Your task to perform on an android device: turn off wifi Image 0: 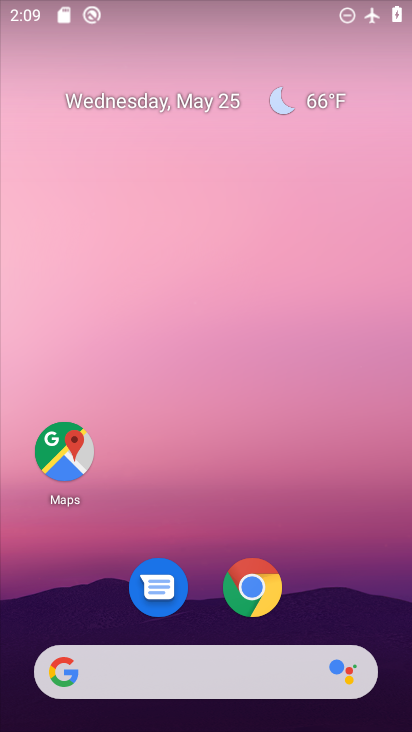
Step 0: drag from (372, 605) to (372, 107)
Your task to perform on an android device: turn off wifi Image 1: 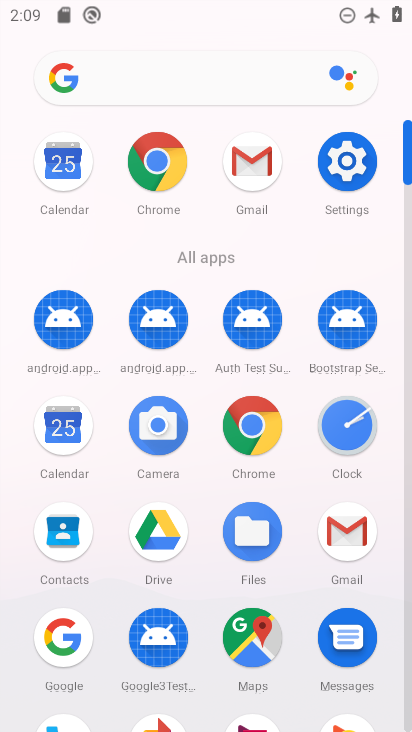
Step 1: click (341, 165)
Your task to perform on an android device: turn off wifi Image 2: 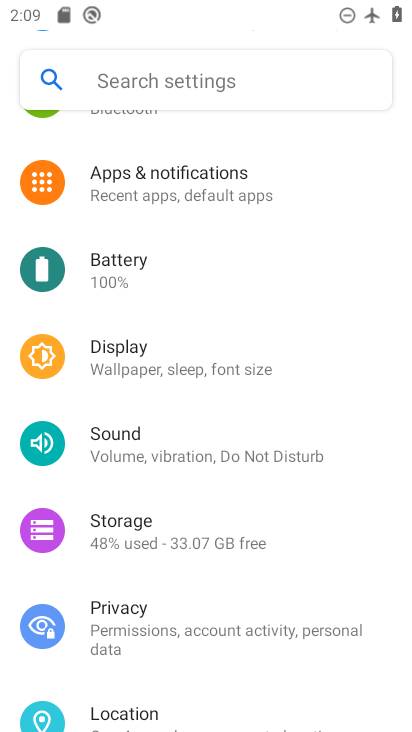
Step 2: drag from (323, 263) to (347, 453)
Your task to perform on an android device: turn off wifi Image 3: 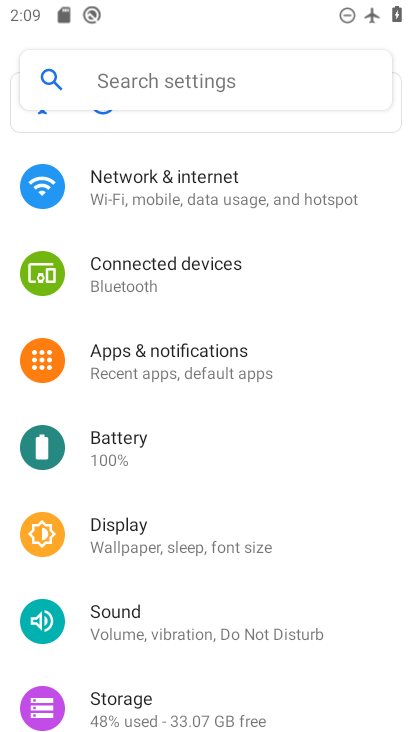
Step 3: drag from (339, 646) to (351, 461)
Your task to perform on an android device: turn off wifi Image 4: 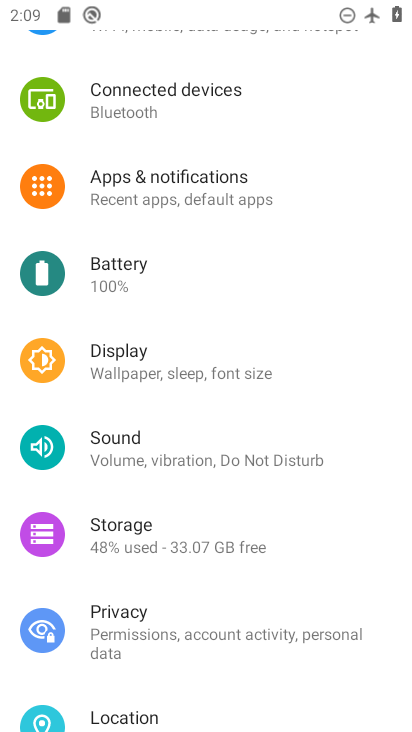
Step 4: drag from (345, 621) to (345, 421)
Your task to perform on an android device: turn off wifi Image 5: 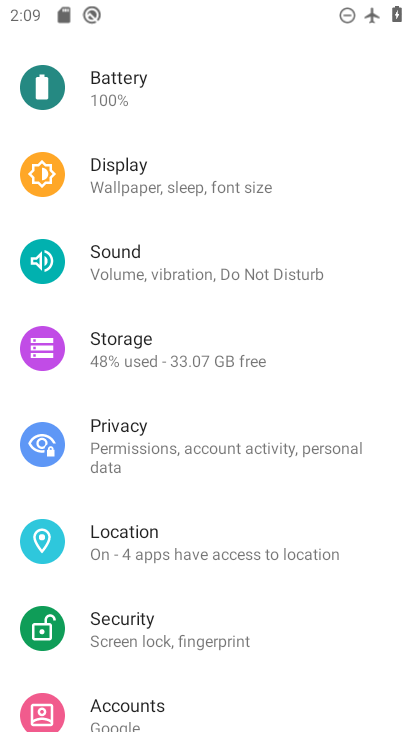
Step 5: drag from (327, 633) to (353, 454)
Your task to perform on an android device: turn off wifi Image 6: 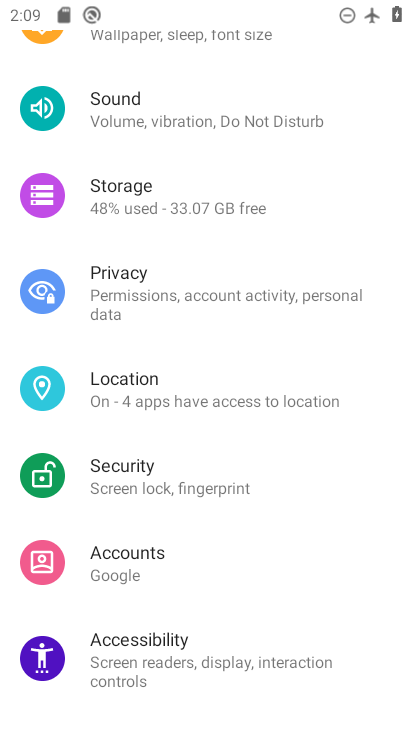
Step 6: drag from (346, 210) to (326, 472)
Your task to perform on an android device: turn off wifi Image 7: 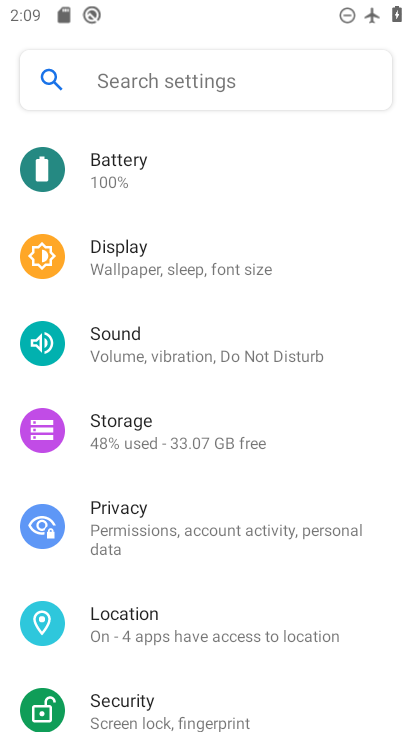
Step 7: drag from (348, 251) to (340, 477)
Your task to perform on an android device: turn off wifi Image 8: 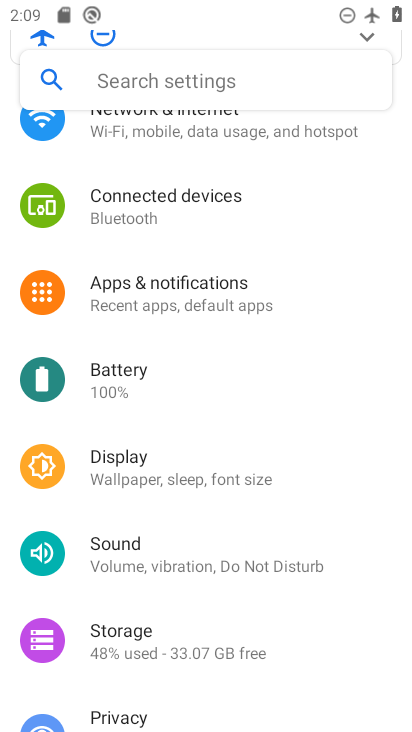
Step 8: drag from (345, 286) to (336, 451)
Your task to perform on an android device: turn off wifi Image 9: 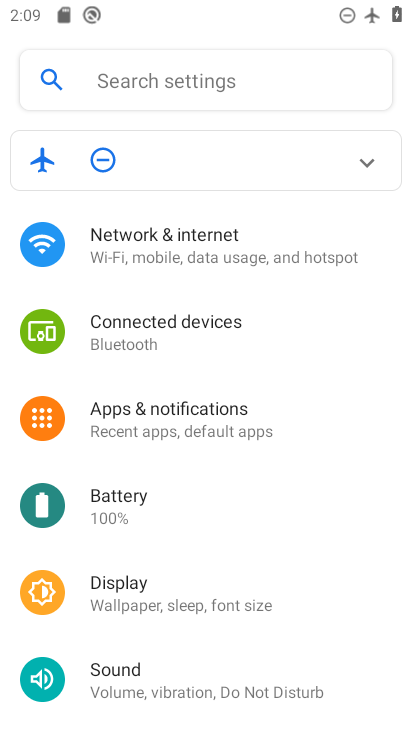
Step 9: drag from (320, 498) to (327, 358)
Your task to perform on an android device: turn off wifi Image 10: 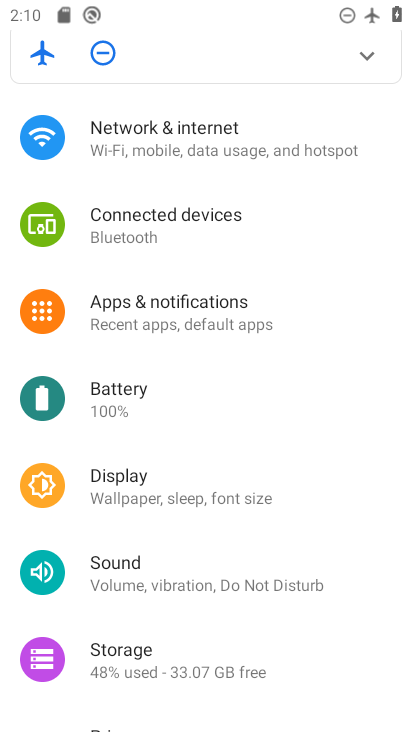
Step 10: drag from (347, 565) to (349, 349)
Your task to perform on an android device: turn off wifi Image 11: 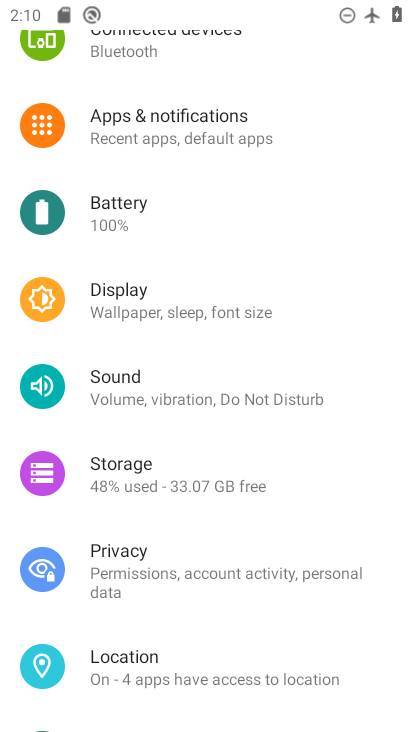
Step 11: drag from (349, 595) to (348, 374)
Your task to perform on an android device: turn off wifi Image 12: 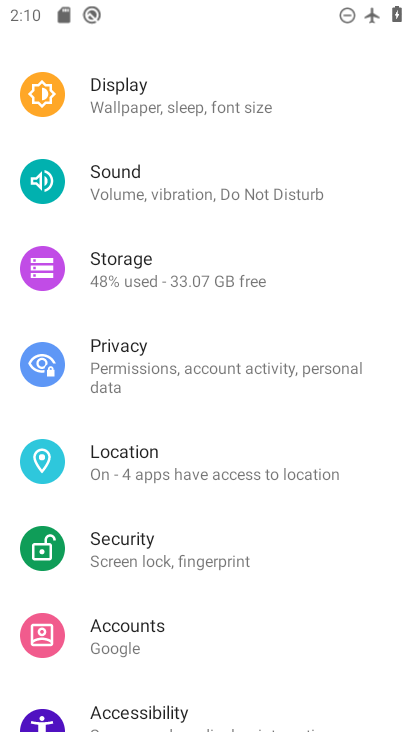
Step 12: drag from (342, 604) to (349, 382)
Your task to perform on an android device: turn off wifi Image 13: 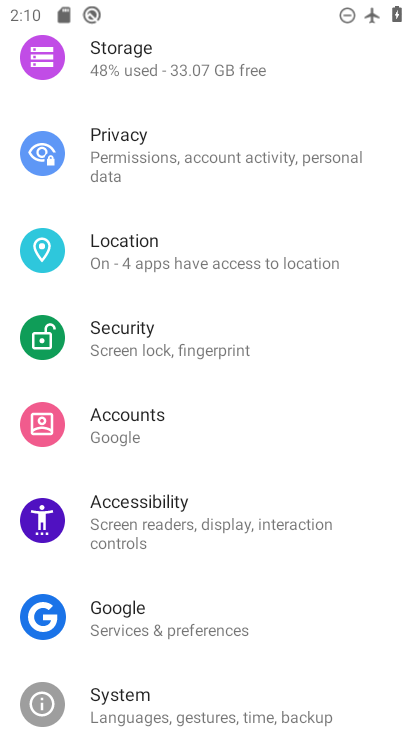
Step 13: drag from (349, 242) to (341, 435)
Your task to perform on an android device: turn off wifi Image 14: 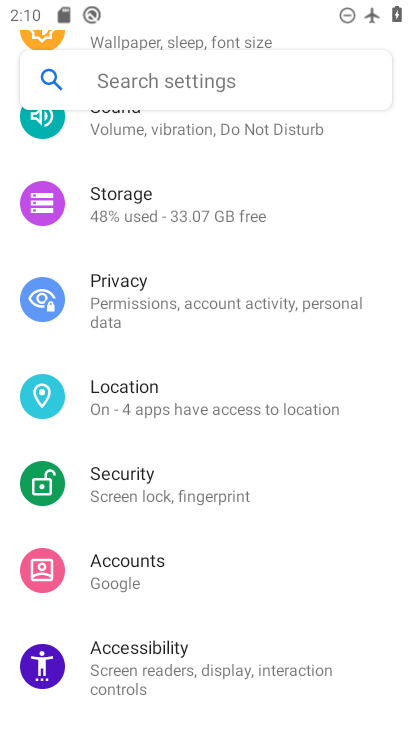
Step 14: drag from (351, 233) to (360, 453)
Your task to perform on an android device: turn off wifi Image 15: 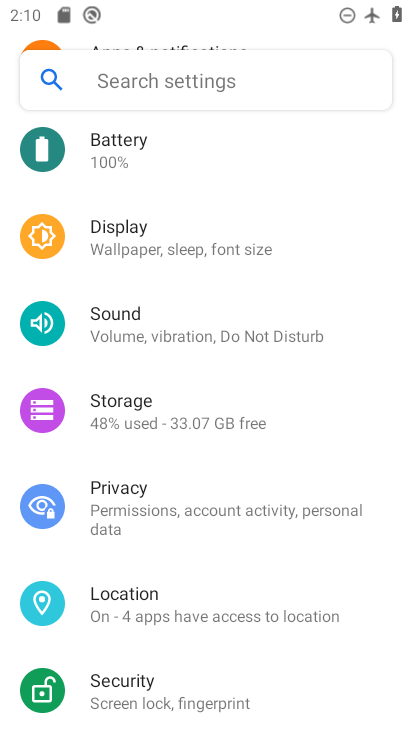
Step 15: drag from (348, 228) to (344, 434)
Your task to perform on an android device: turn off wifi Image 16: 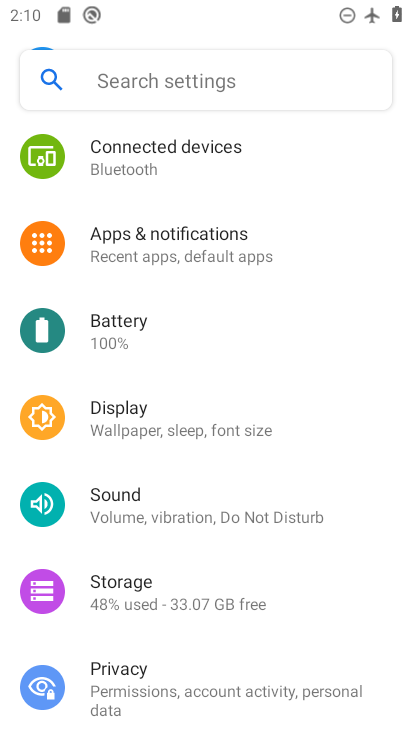
Step 16: drag from (332, 219) to (335, 396)
Your task to perform on an android device: turn off wifi Image 17: 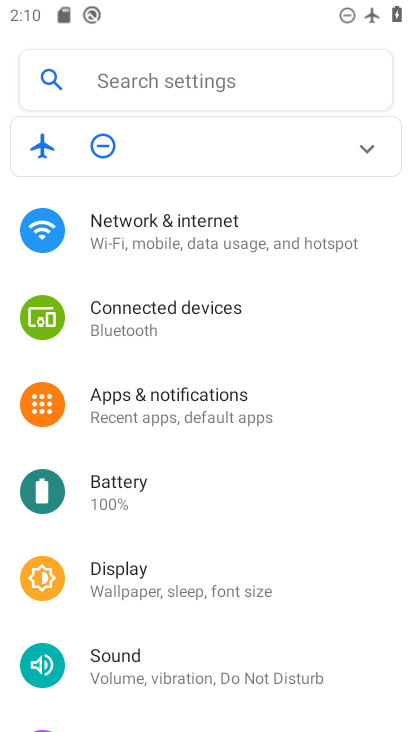
Step 17: drag from (314, 192) to (312, 365)
Your task to perform on an android device: turn off wifi Image 18: 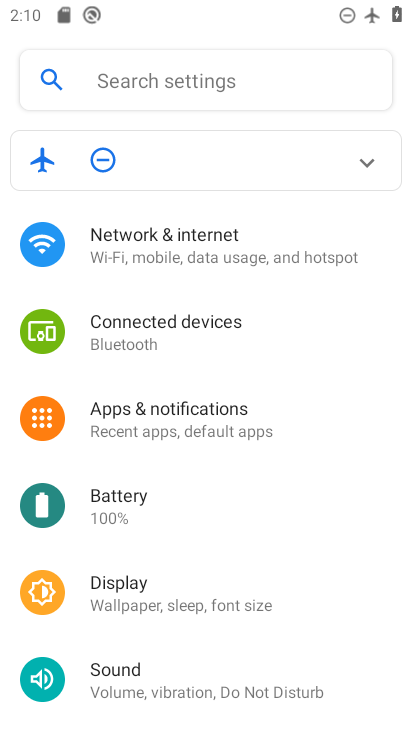
Step 18: click (232, 252)
Your task to perform on an android device: turn off wifi Image 19: 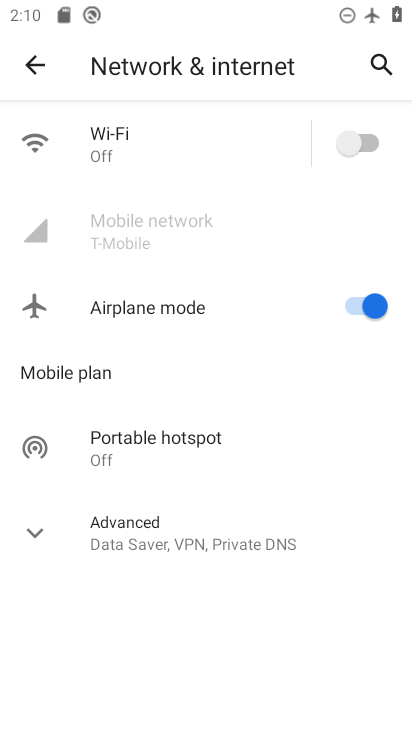
Step 19: task complete